Your task to perform on an android device: turn on sleep mode Image 0: 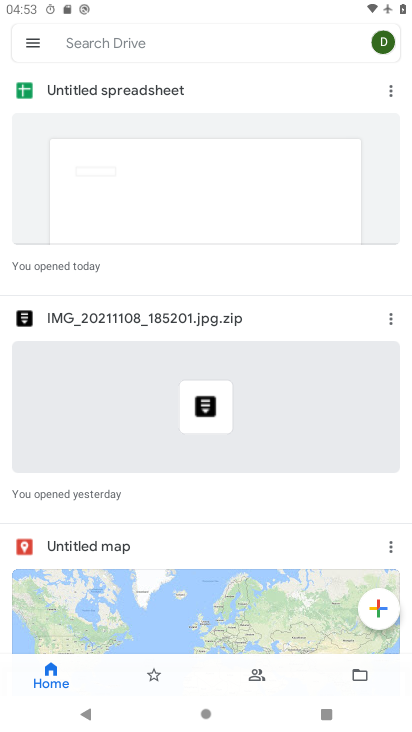
Step 0: press home button
Your task to perform on an android device: turn on sleep mode Image 1: 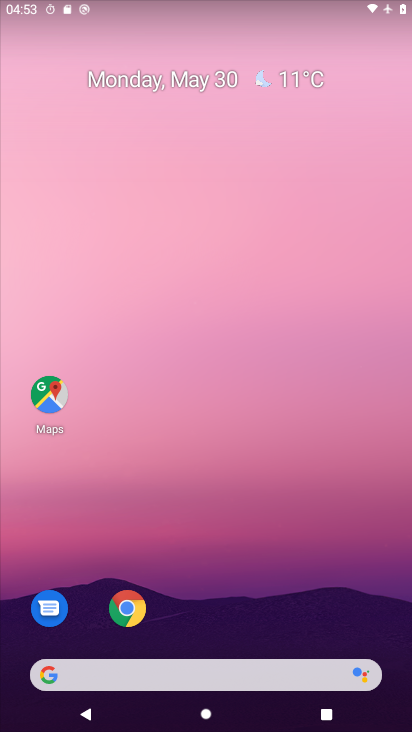
Step 1: drag from (248, 551) to (195, 5)
Your task to perform on an android device: turn on sleep mode Image 2: 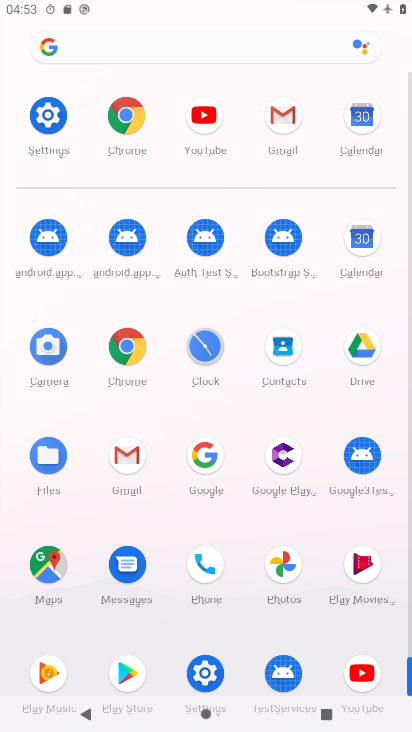
Step 2: click (47, 115)
Your task to perform on an android device: turn on sleep mode Image 3: 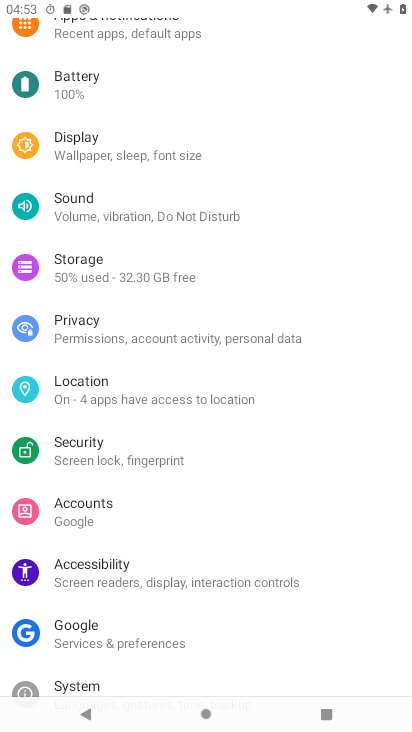
Step 3: click (128, 152)
Your task to perform on an android device: turn on sleep mode Image 4: 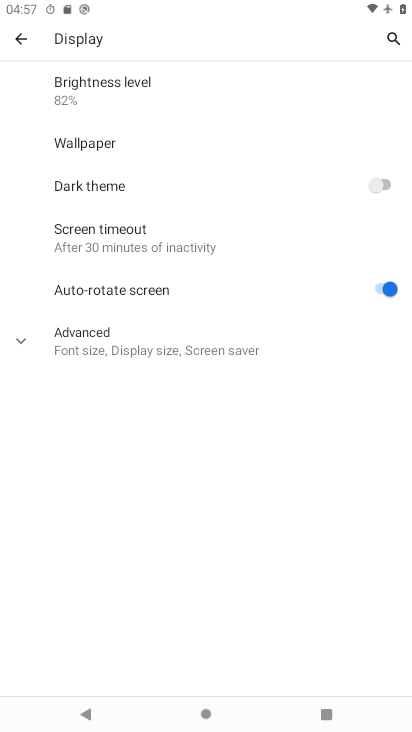
Step 4: task complete